Your task to perform on an android device: Go to location settings Image 0: 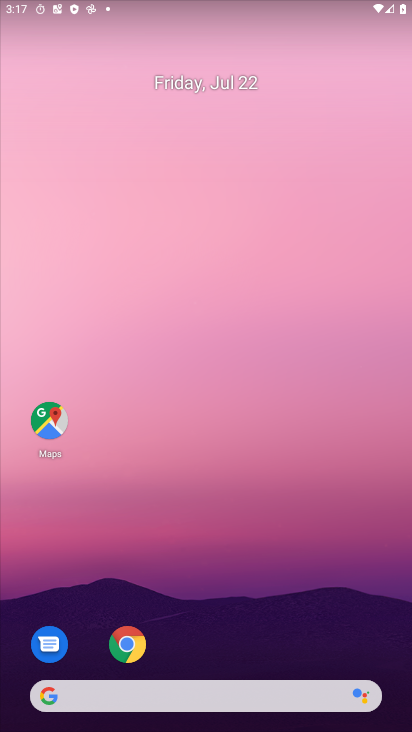
Step 0: drag from (251, 559) to (255, 84)
Your task to perform on an android device: Go to location settings Image 1: 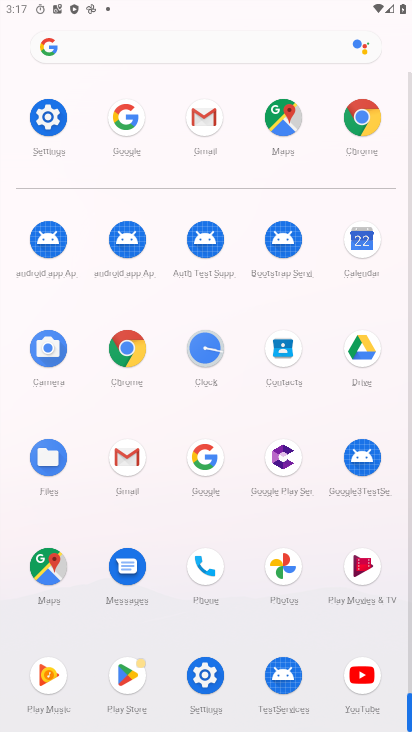
Step 1: click (50, 140)
Your task to perform on an android device: Go to location settings Image 2: 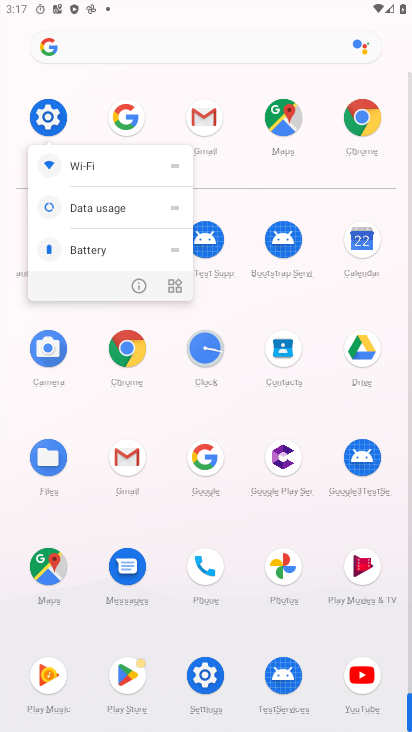
Step 2: click (48, 117)
Your task to perform on an android device: Go to location settings Image 3: 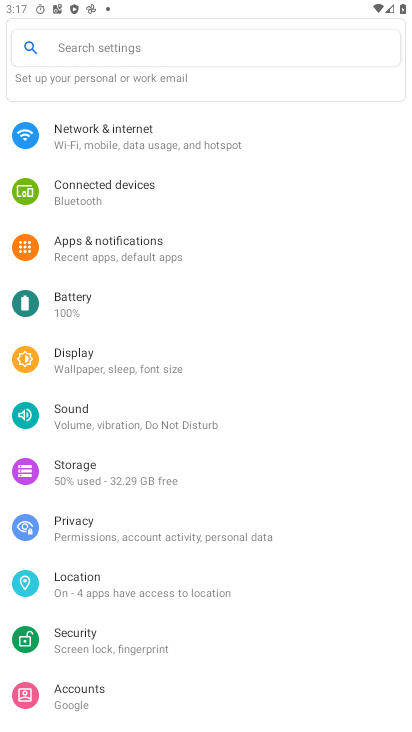
Step 3: click (161, 591)
Your task to perform on an android device: Go to location settings Image 4: 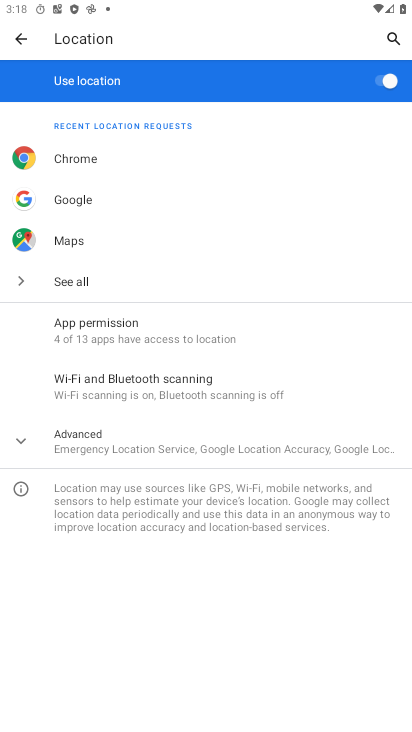
Step 4: task complete